Your task to perform on an android device: Go to internet settings Image 0: 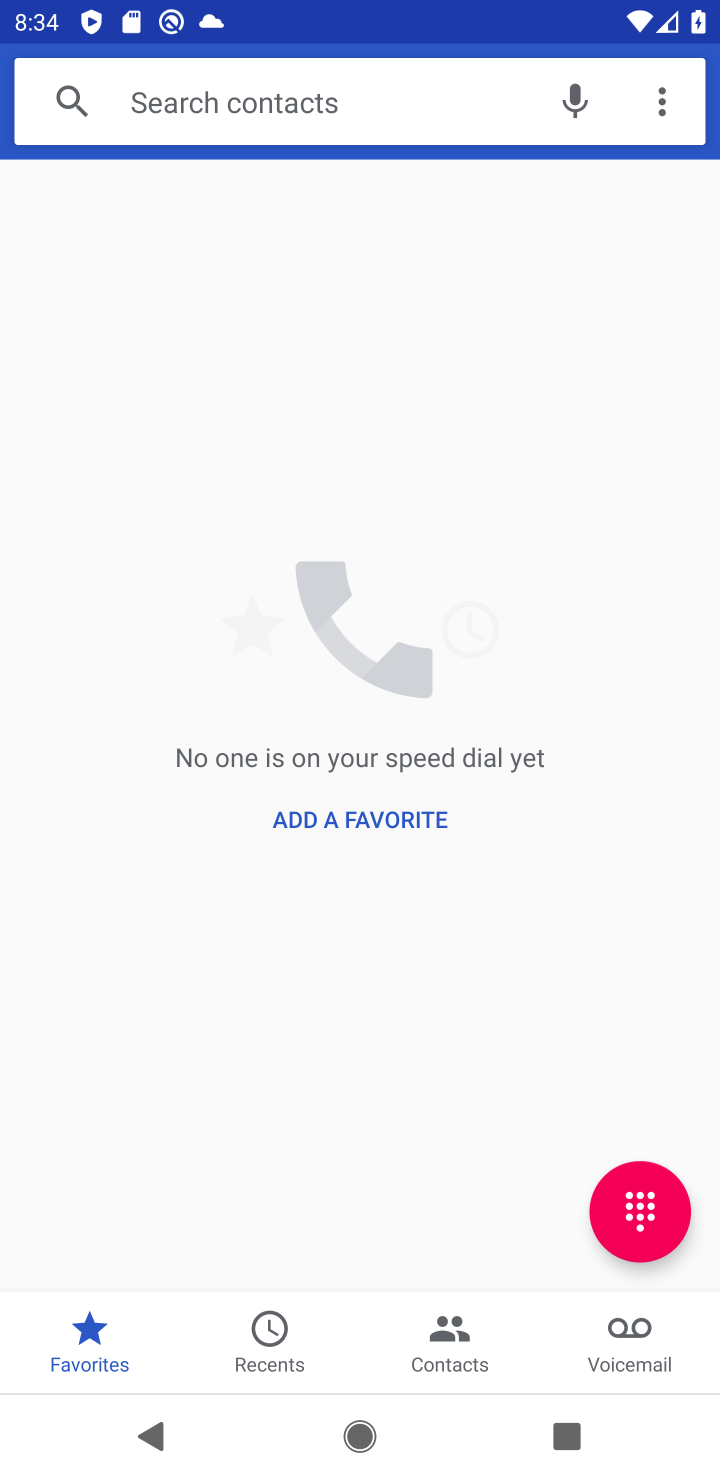
Step 0: press home button
Your task to perform on an android device: Go to internet settings Image 1: 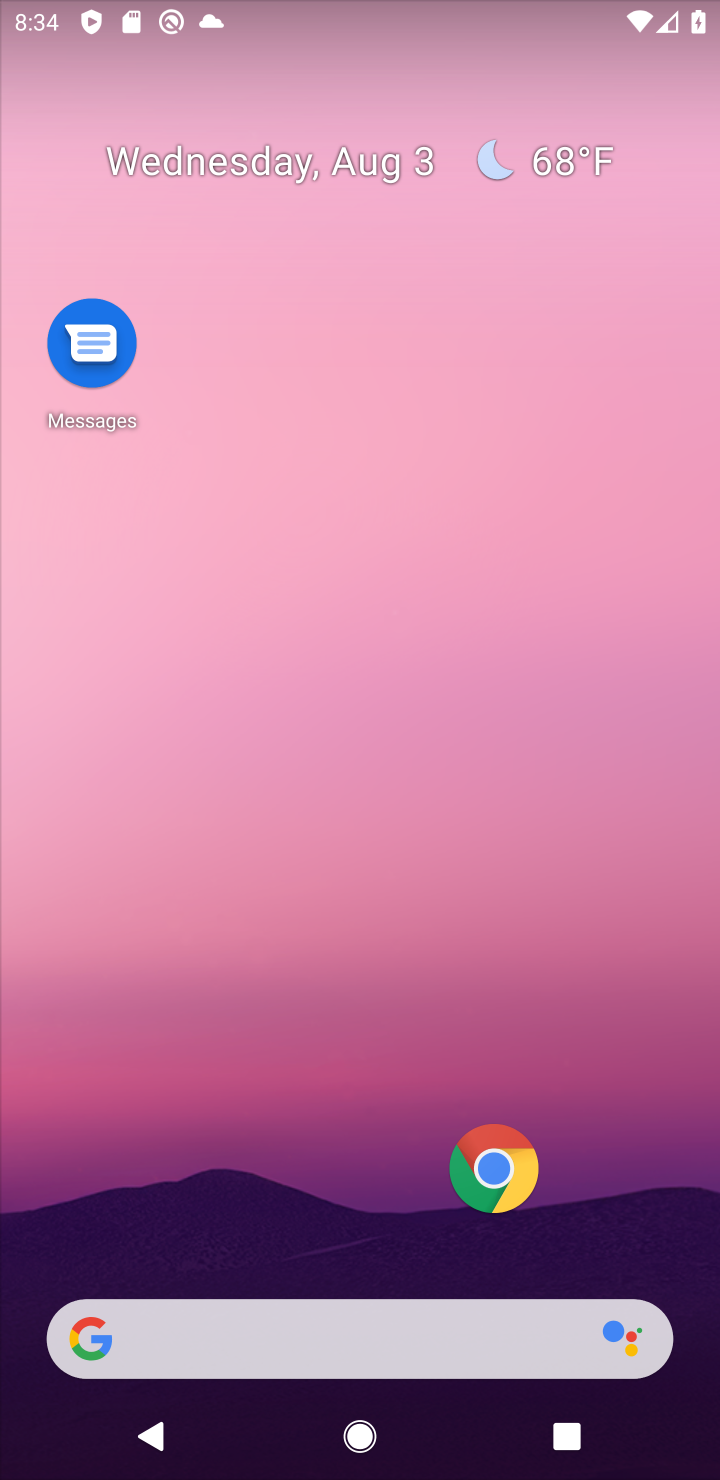
Step 1: drag from (264, 1184) to (579, 23)
Your task to perform on an android device: Go to internet settings Image 2: 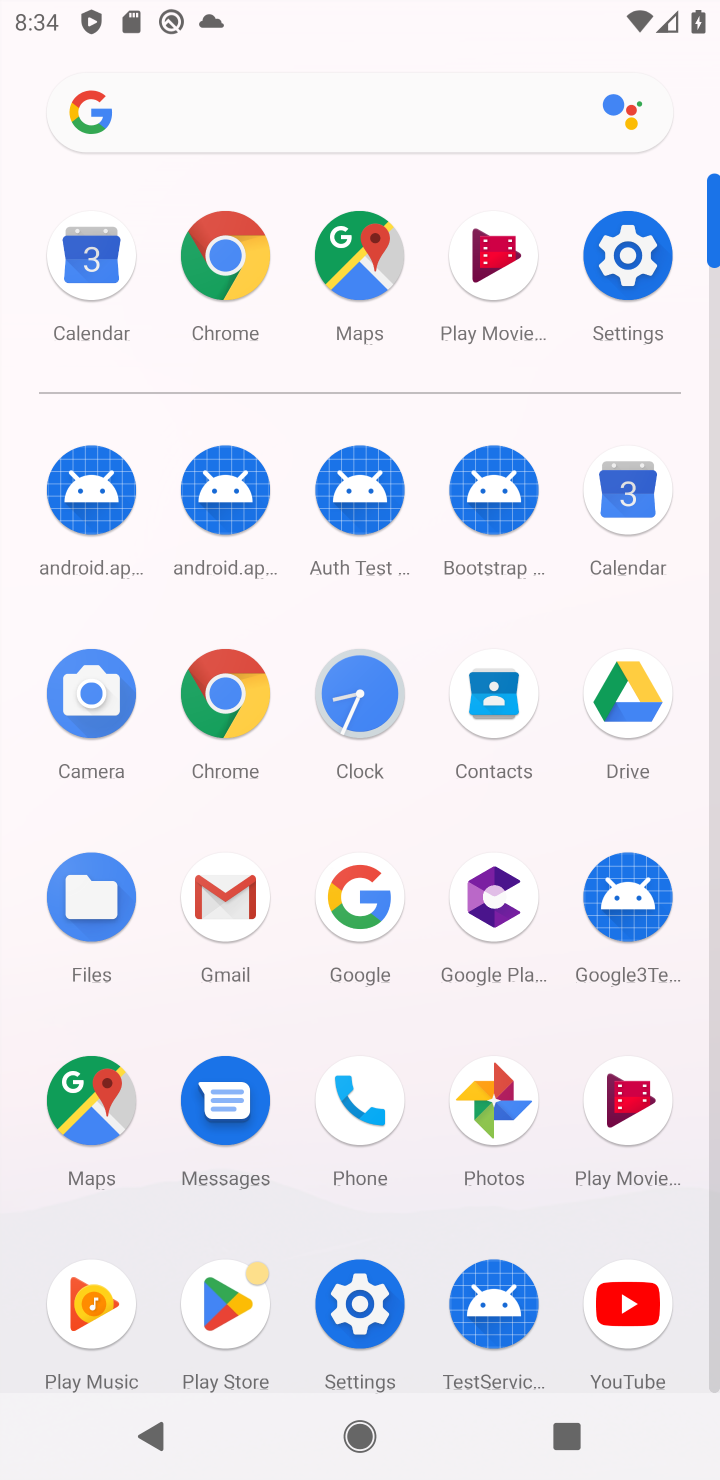
Step 2: click (371, 1300)
Your task to perform on an android device: Go to internet settings Image 3: 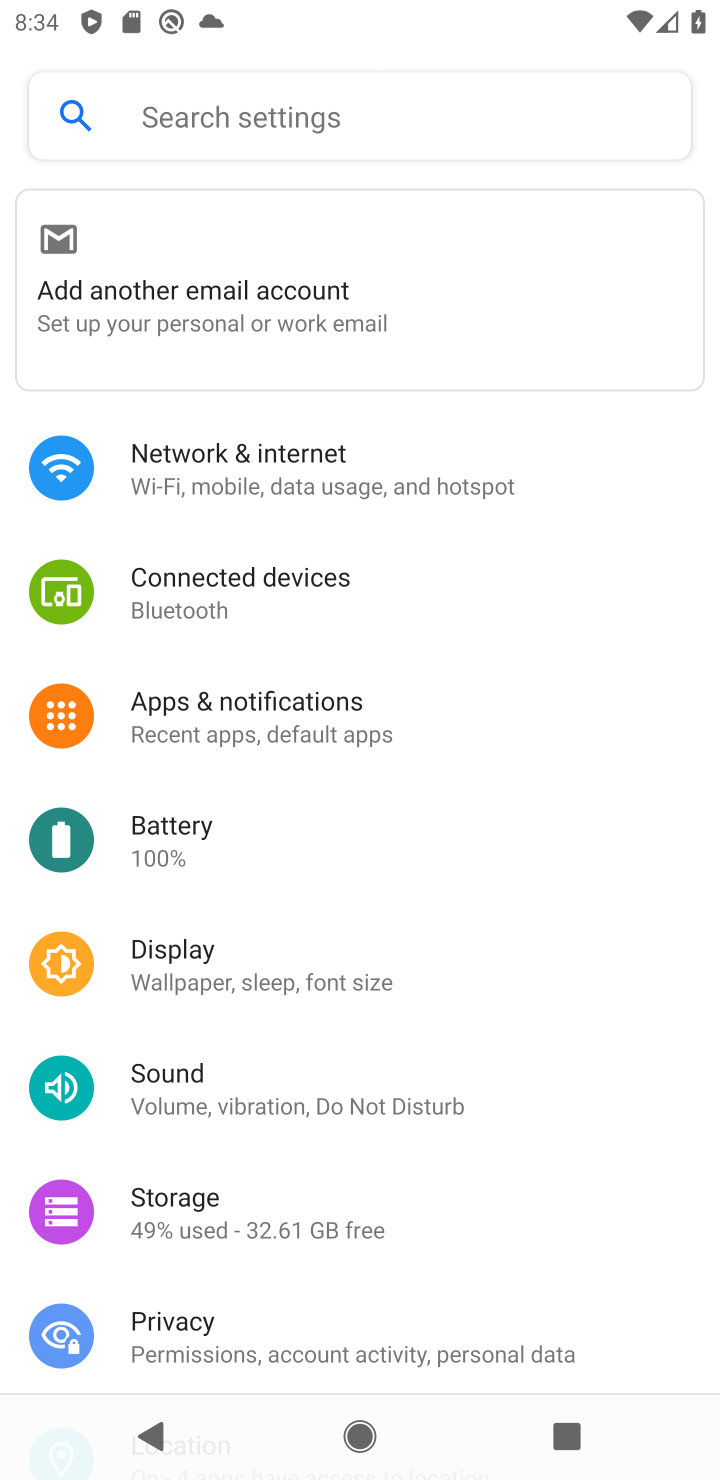
Step 3: click (141, 447)
Your task to perform on an android device: Go to internet settings Image 4: 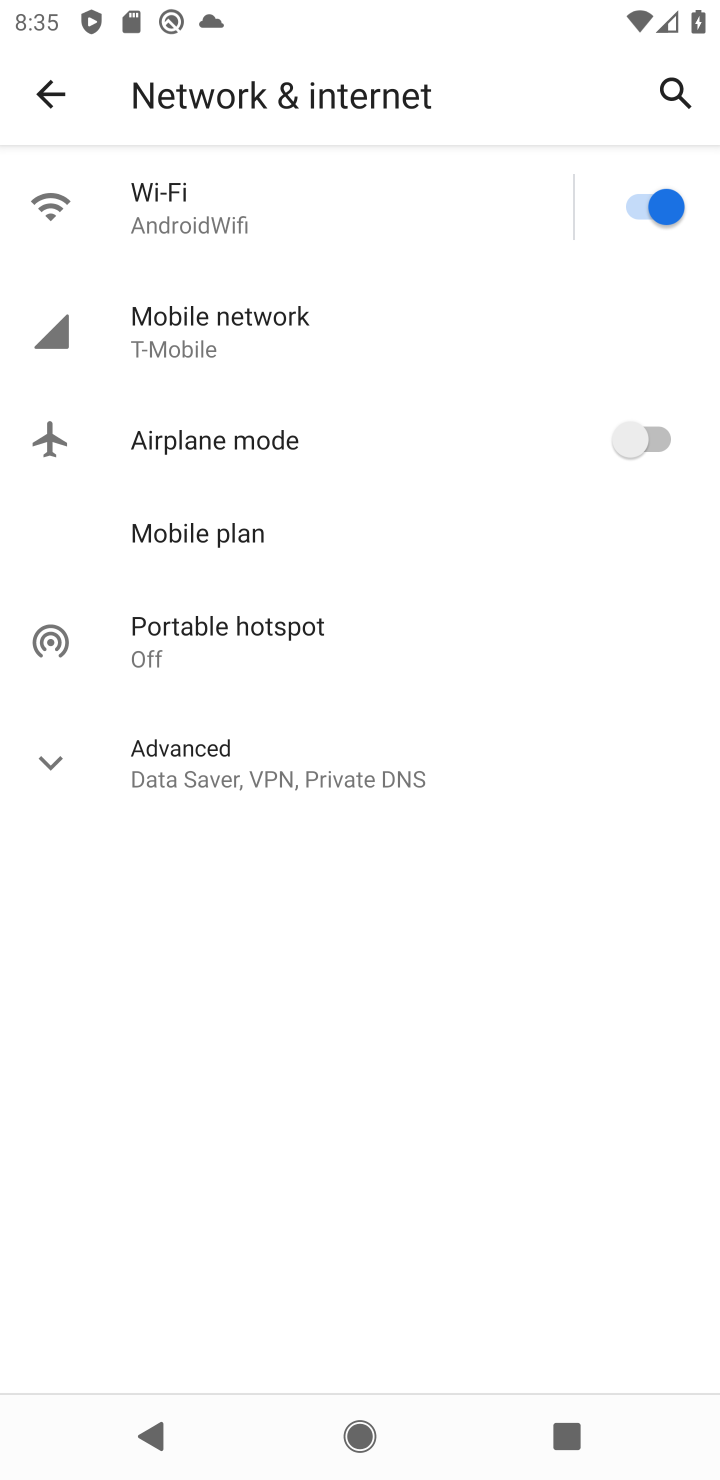
Step 4: click (168, 307)
Your task to perform on an android device: Go to internet settings Image 5: 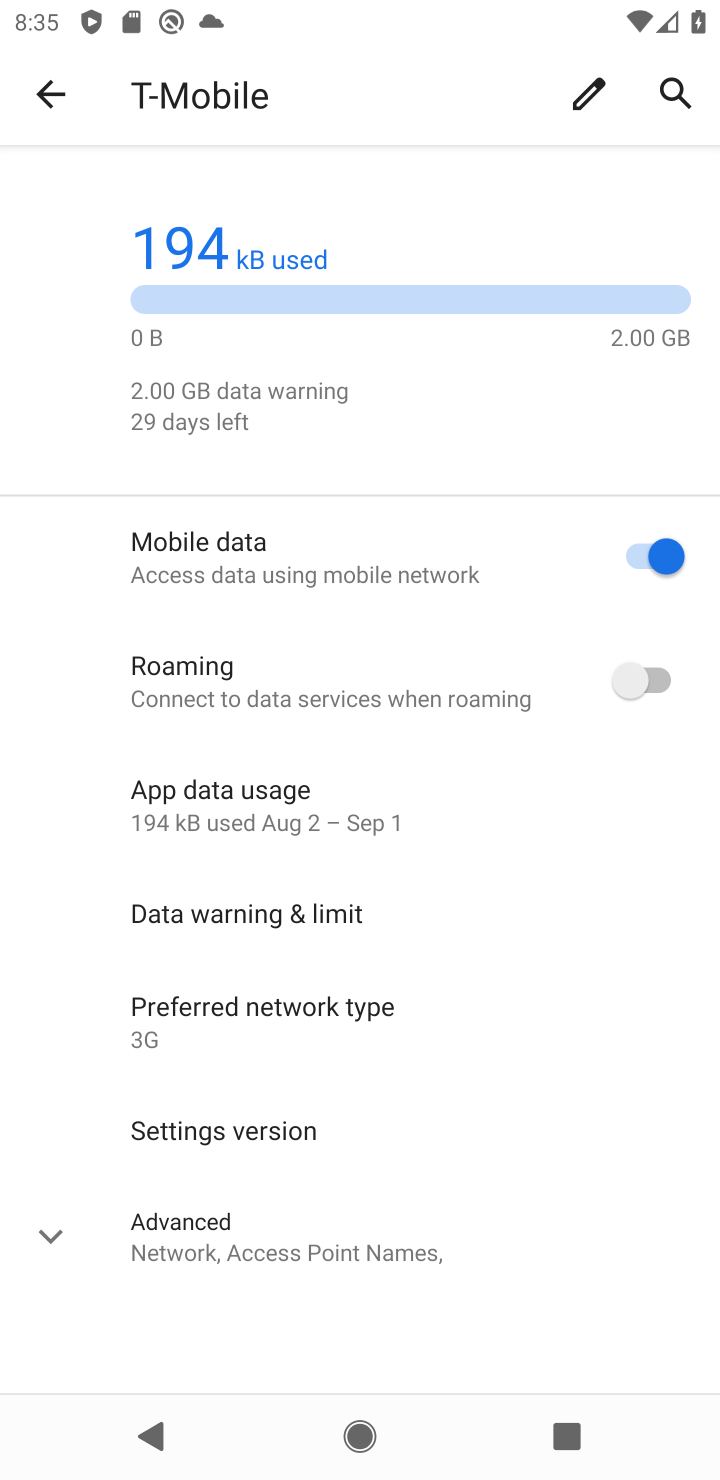
Step 5: task complete